Your task to perform on an android device: turn on wifi Image 0: 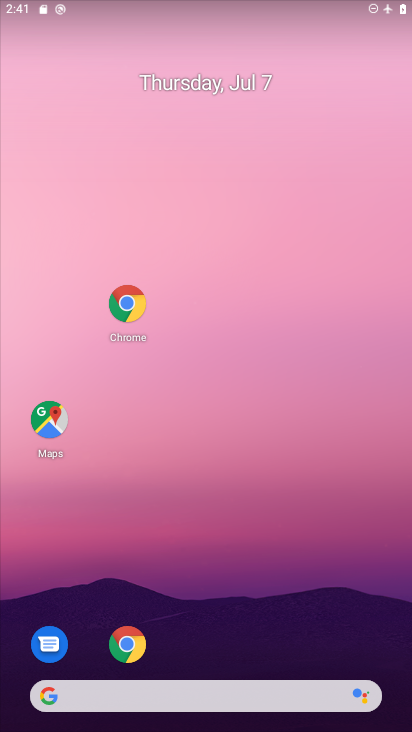
Step 0: drag from (329, 144) to (313, 606)
Your task to perform on an android device: turn on wifi Image 1: 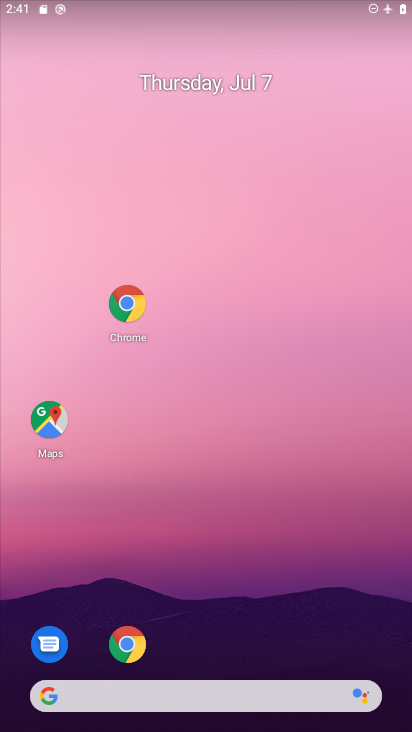
Step 1: drag from (314, 1) to (256, 648)
Your task to perform on an android device: turn on wifi Image 2: 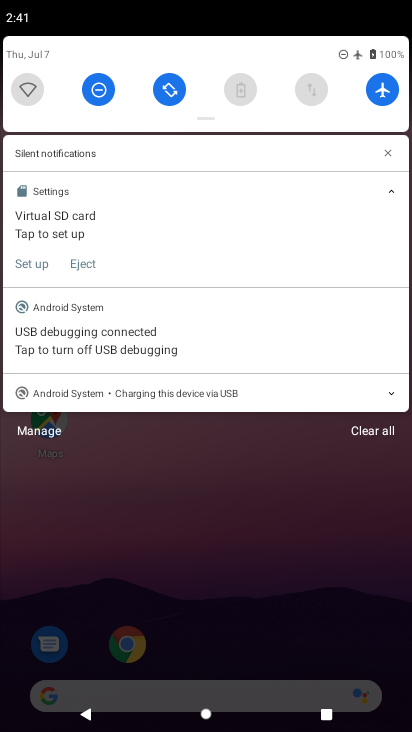
Step 2: click (24, 86)
Your task to perform on an android device: turn on wifi Image 3: 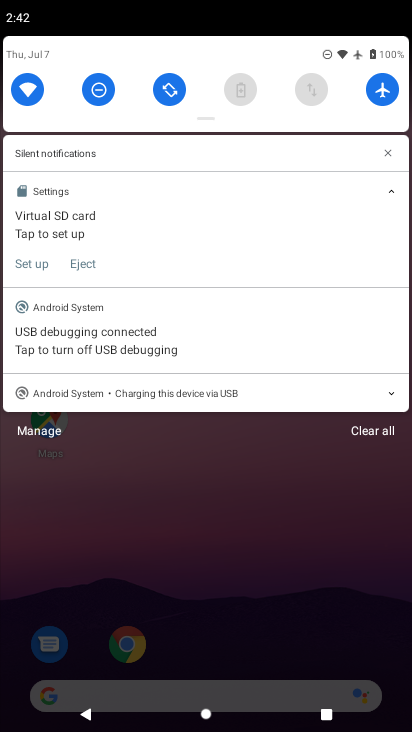
Step 3: task complete